Your task to perform on an android device: Open the web browser Image 0: 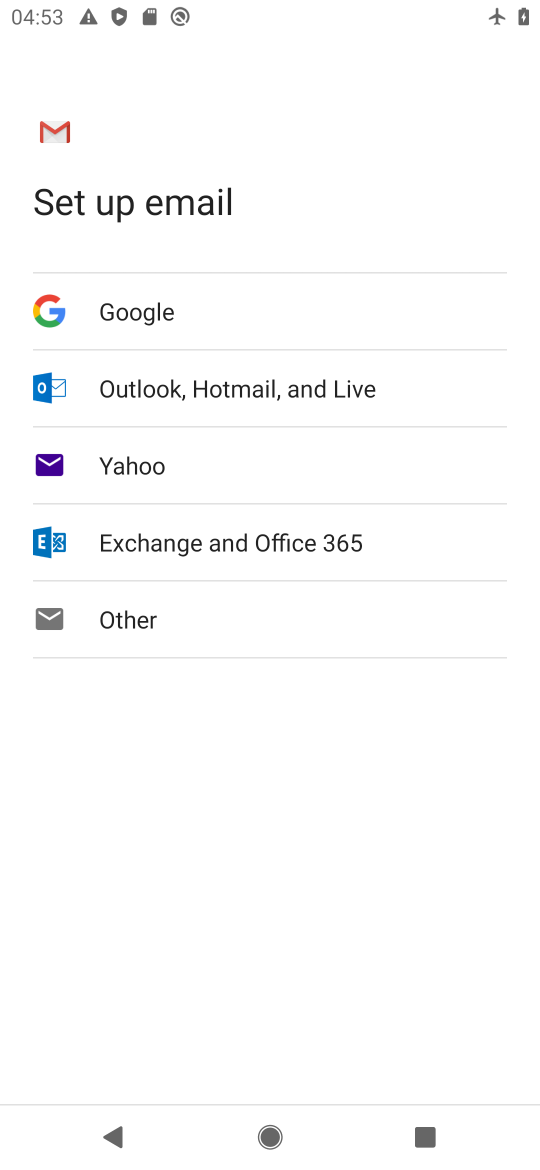
Step 0: press back button
Your task to perform on an android device: Open the web browser Image 1: 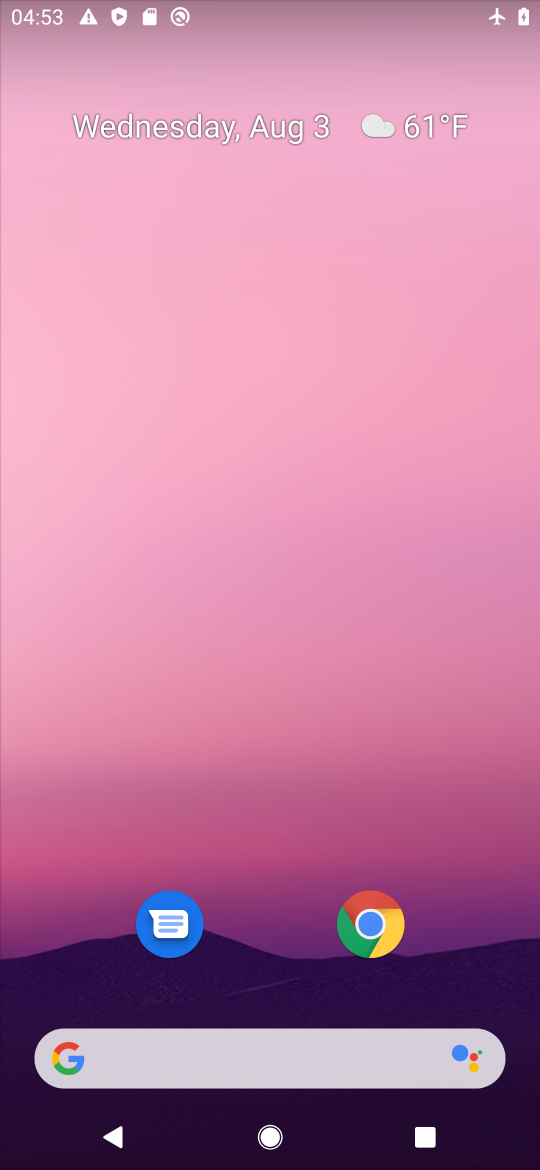
Step 1: click (249, 968)
Your task to perform on an android device: Open the web browser Image 2: 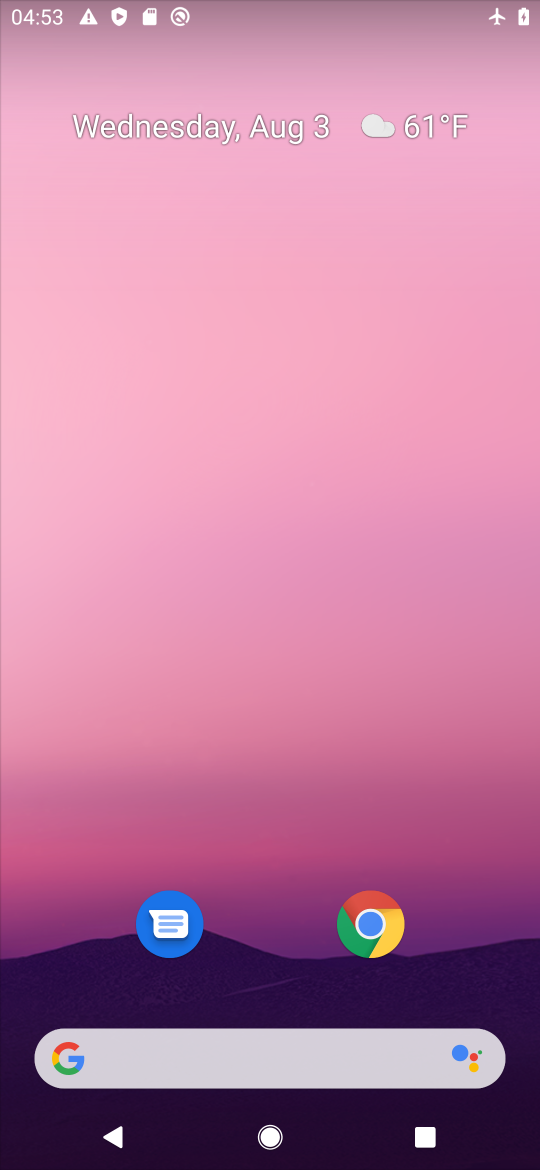
Step 2: click (339, 936)
Your task to perform on an android device: Open the web browser Image 3: 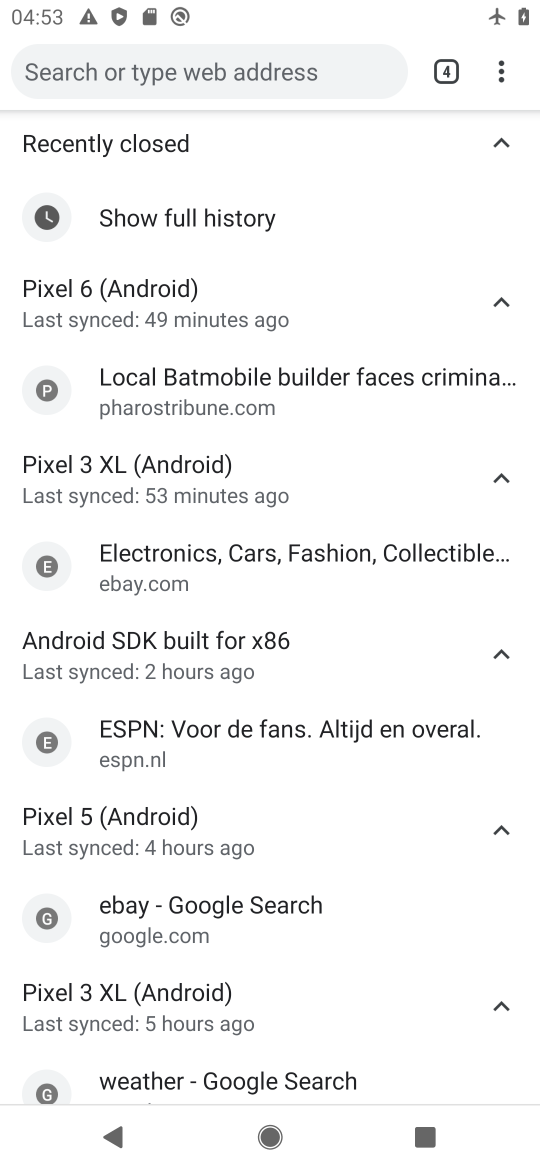
Step 3: task complete